Your task to perform on an android device: empty trash in the gmail app Image 0: 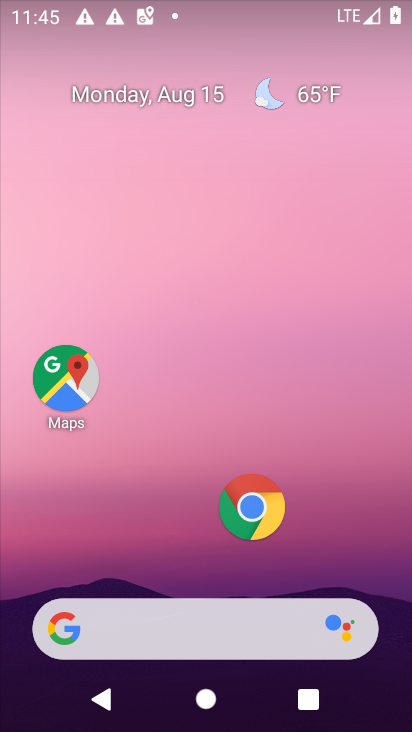
Step 0: drag from (170, 583) to (161, 3)
Your task to perform on an android device: empty trash in the gmail app Image 1: 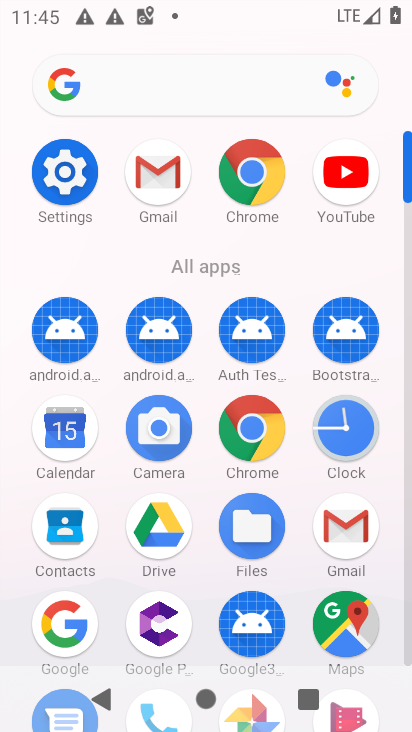
Step 1: click (143, 162)
Your task to perform on an android device: empty trash in the gmail app Image 2: 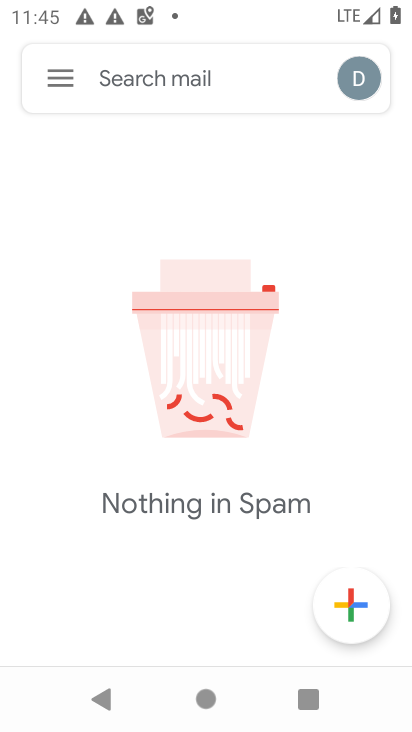
Step 2: click (55, 78)
Your task to perform on an android device: empty trash in the gmail app Image 3: 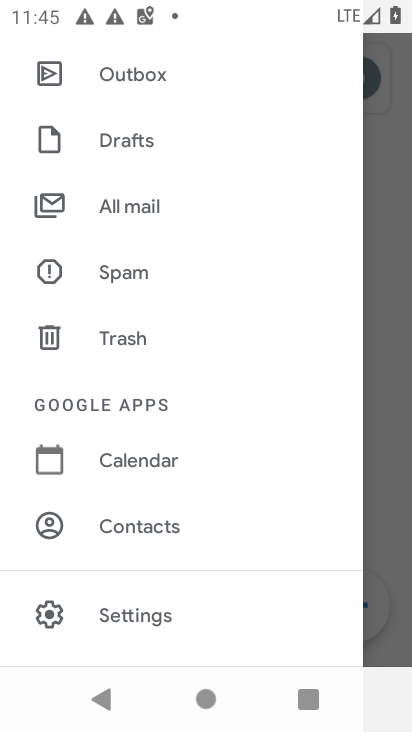
Step 3: click (133, 333)
Your task to perform on an android device: empty trash in the gmail app Image 4: 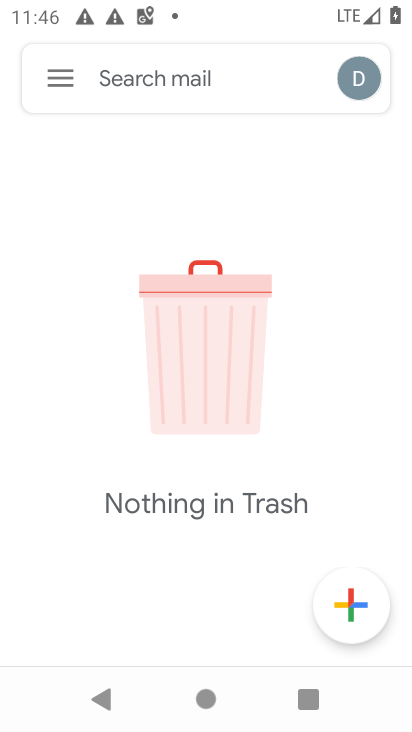
Step 4: task complete